Your task to perform on an android device: toggle sleep mode Image 0: 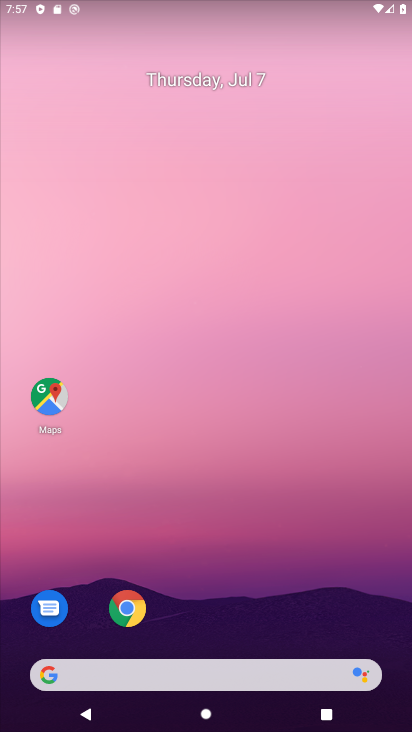
Step 0: drag from (211, 621) to (194, 196)
Your task to perform on an android device: toggle sleep mode Image 1: 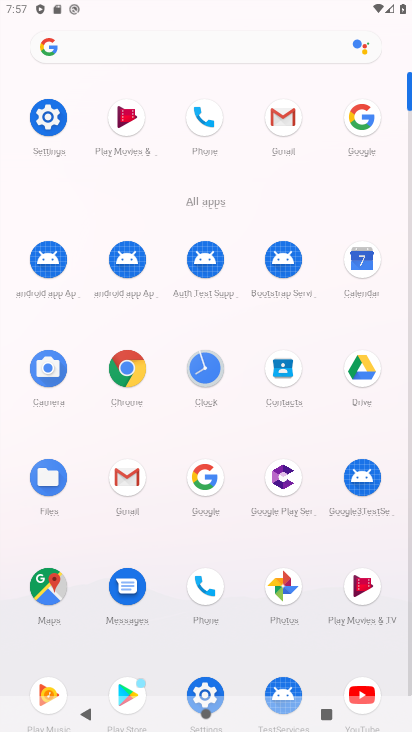
Step 1: click (65, 120)
Your task to perform on an android device: toggle sleep mode Image 2: 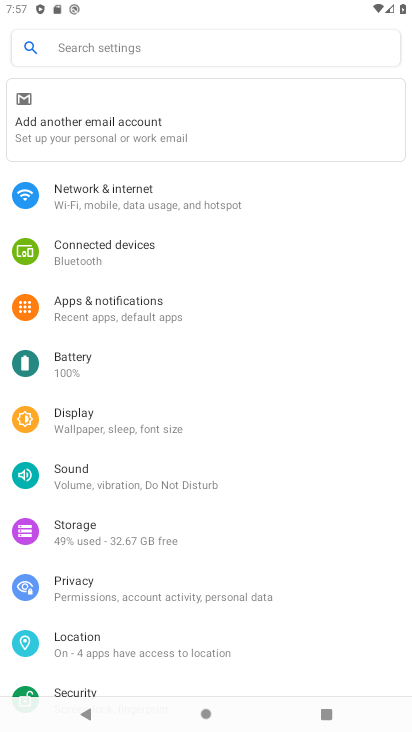
Step 2: click (116, 424)
Your task to perform on an android device: toggle sleep mode Image 3: 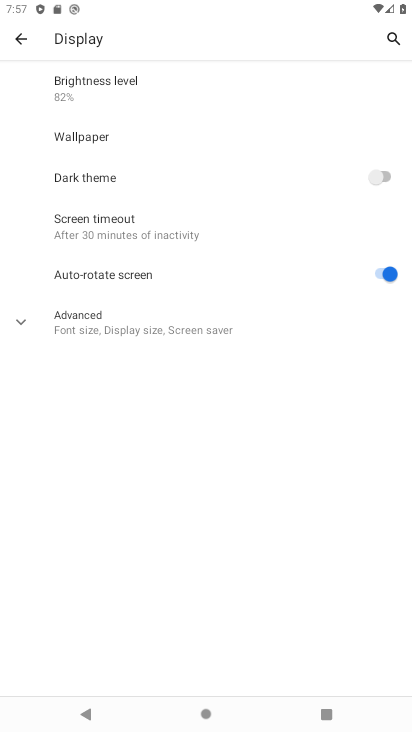
Step 3: click (135, 206)
Your task to perform on an android device: toggle sleep mode Image 4: 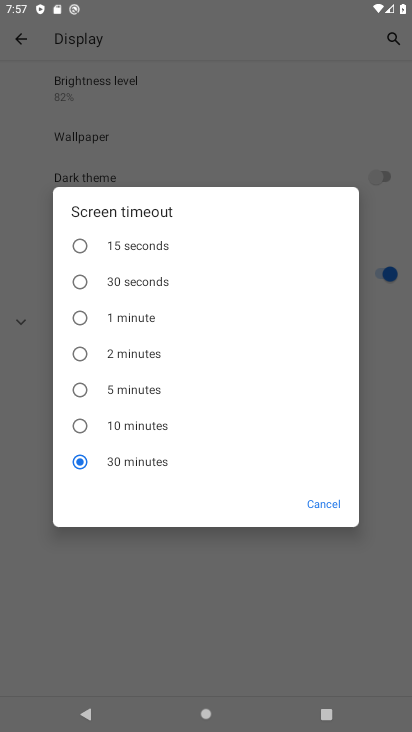
Step 4: click (124, 376)
Your task to perform on an android device: toggle sleep mode Image 5: 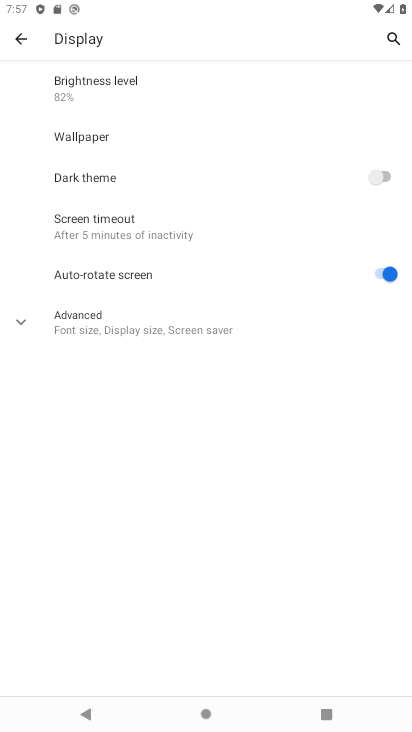
Step 5: task complete